Your task to perform on an android device: Open Wikipedia Image 0: 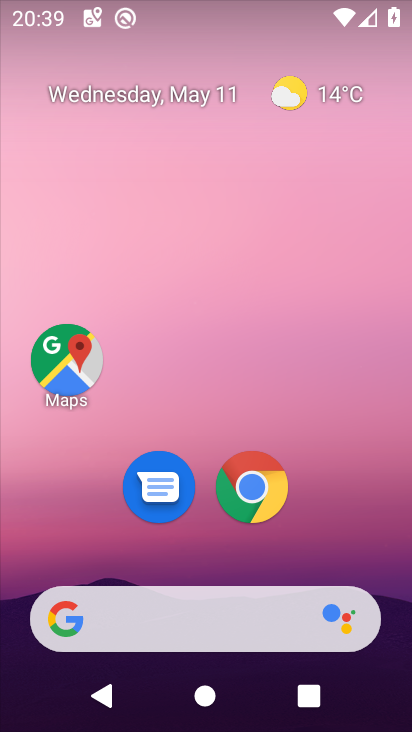
Step 0: click (240, 496)
Your task to perform on an android device: Open Wikipedia Image 1: 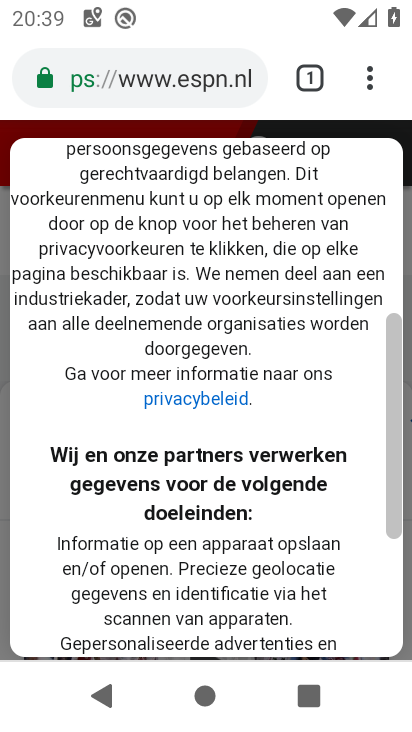
Step 1: click (311, 76)
Your task to perform on an android device: Open Wikipedia Image 2: 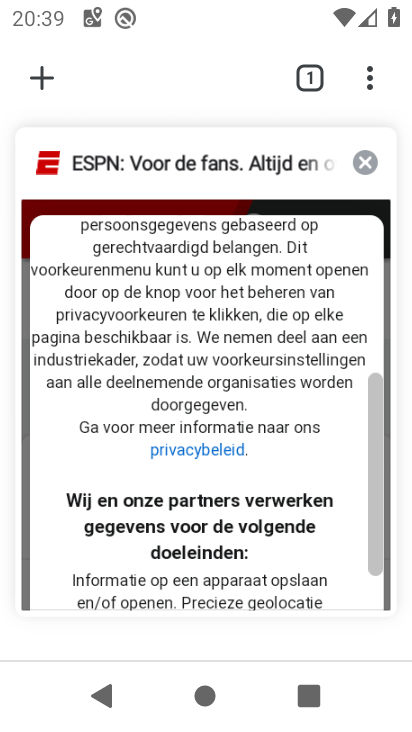
Step 2: click (39, 84)
Your task to perform on an android device: Open Wikipedia Image 3: 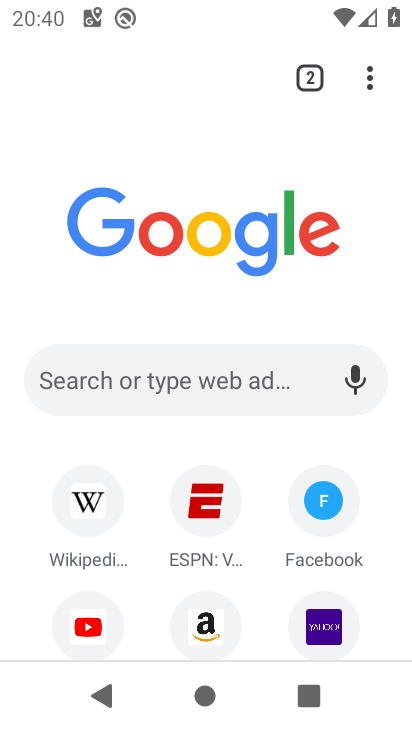
Step 3: click (94, 520)
Your task to perform on an android device: Open Wikipedia Image 4: 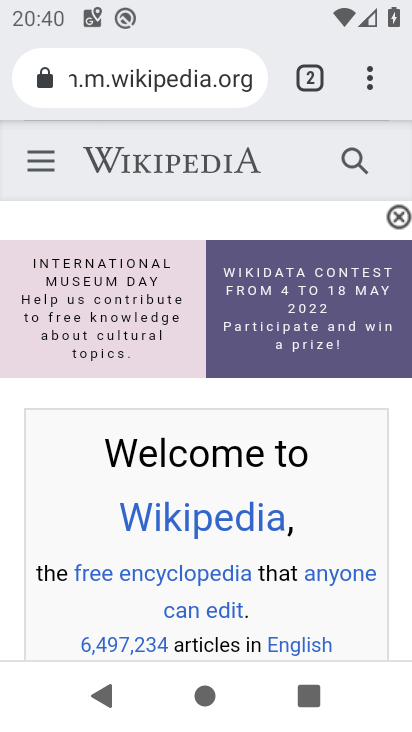
Step 4: task complete